Your task to perform on an android device: manage bookmarks in the chrome app Image 0: 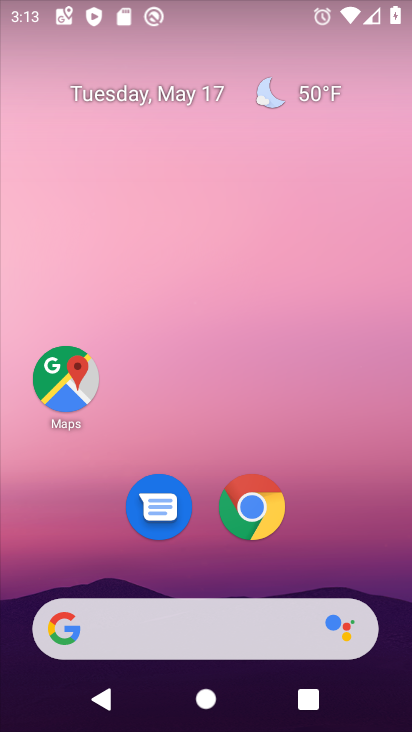
Step 0: click (256, 519)
Your task to perform on an android device: manage bookmarks in the chrome app Image 1: 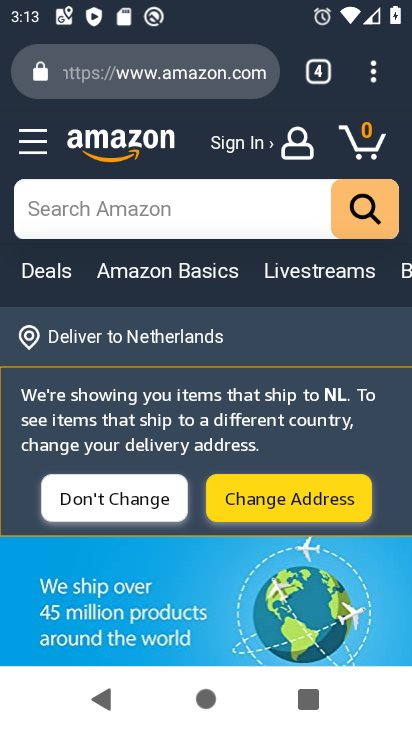
Step 1: click (374, 64)
Your task to perform on an android device: manage bookmarks in the chrome app Image 2: 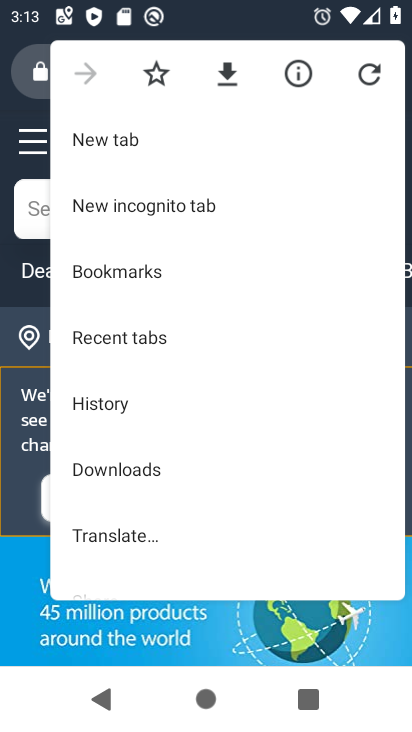
Step 2: click (159, 263)
Your task to perform on an android device: manage bookmarks in the chrome app Image 3: 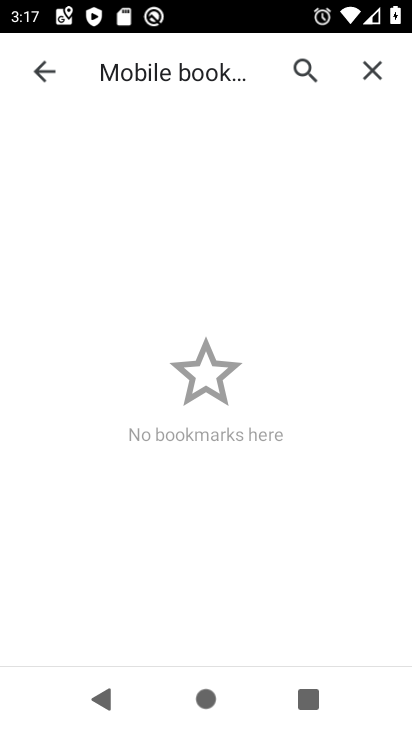
Step 3: task complete